Your task to perform on an android device: Search for asus zenbook on amazon, select the first entry, add it to the cart, then select checkout. Image 0: 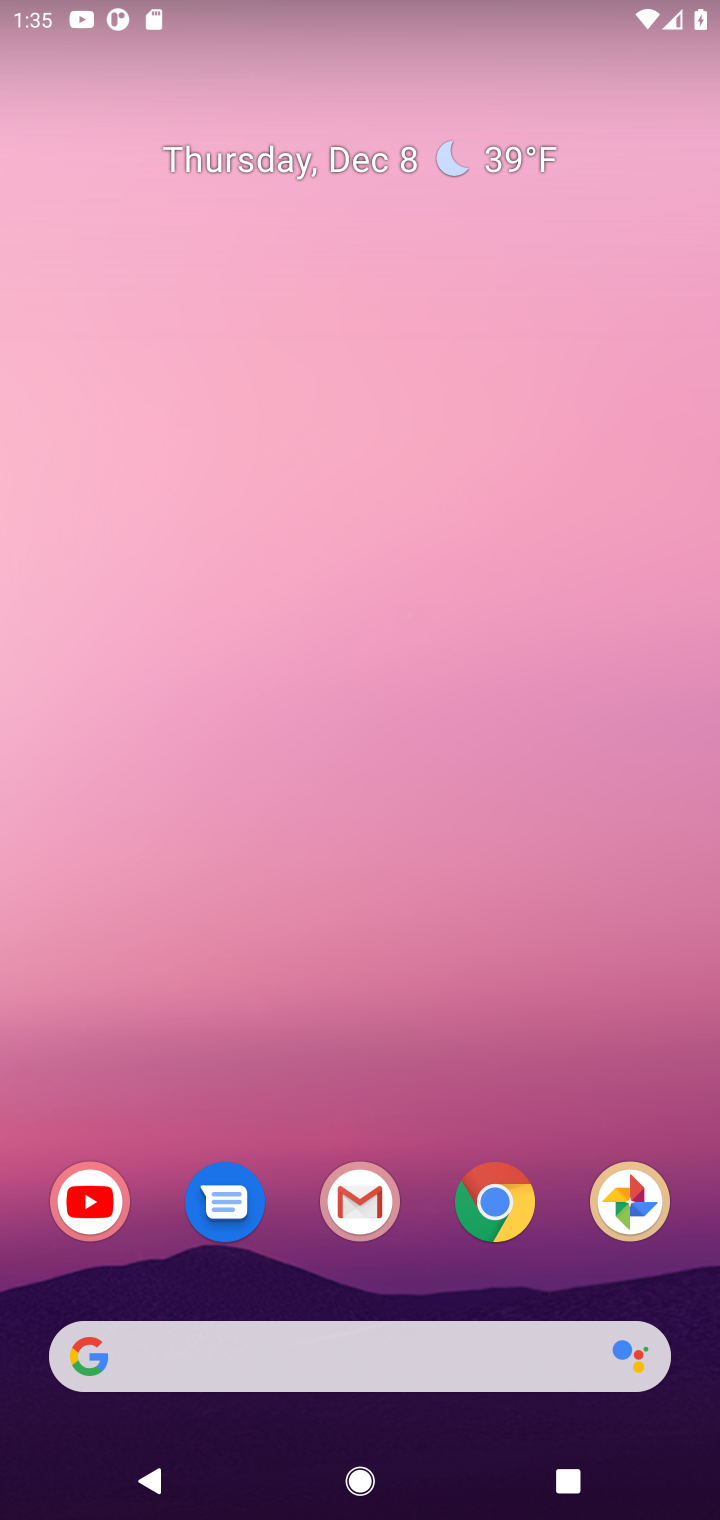
Step 0: click (480, 1177)
Your task to perform on an android device: Search for asus zenbook on amazon, select the first entry, add it to the cart, then select checkout. Image 1: 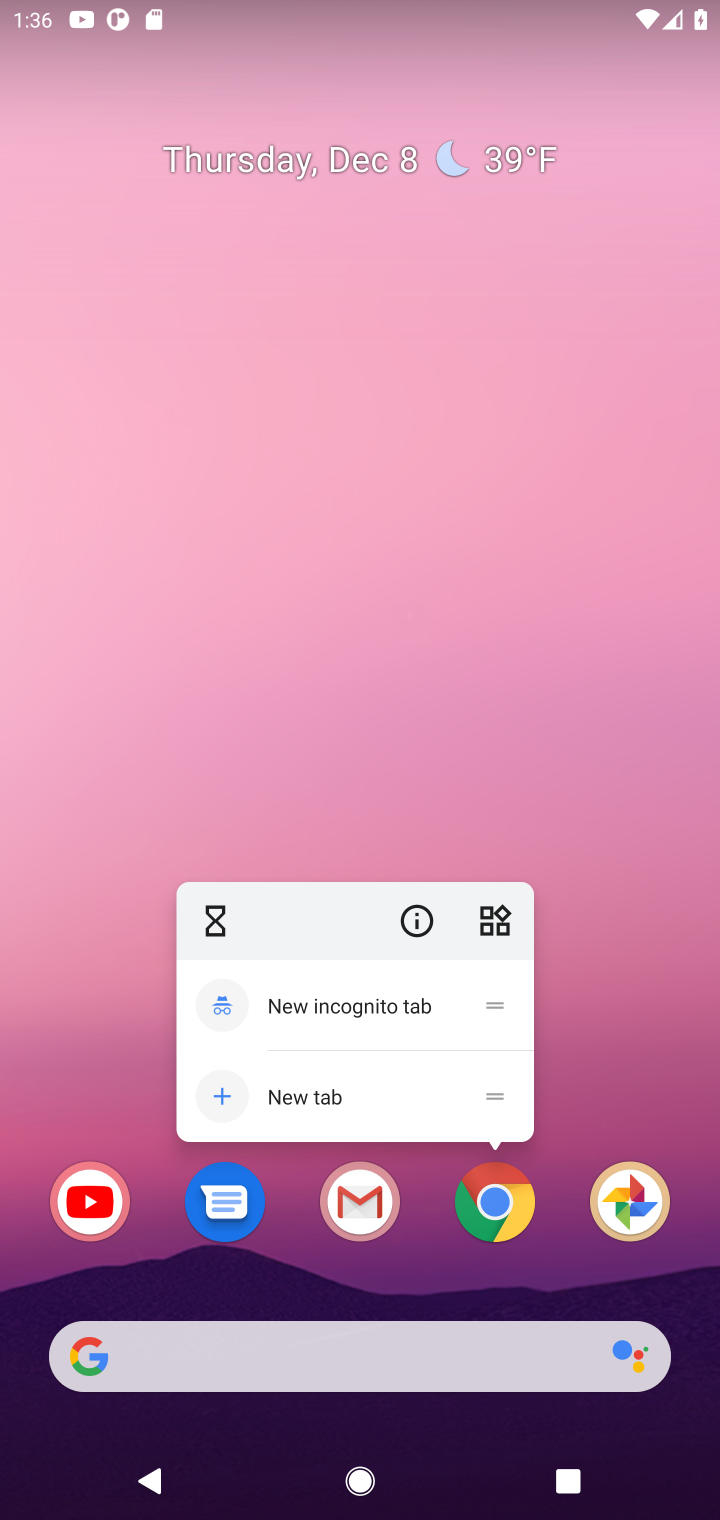
Step 1: click (511, 1195)
Your task to perform on an android device: Search for asus zenbook on amazon, select the first entry, add it to the cart, then select checkout. Image 2: 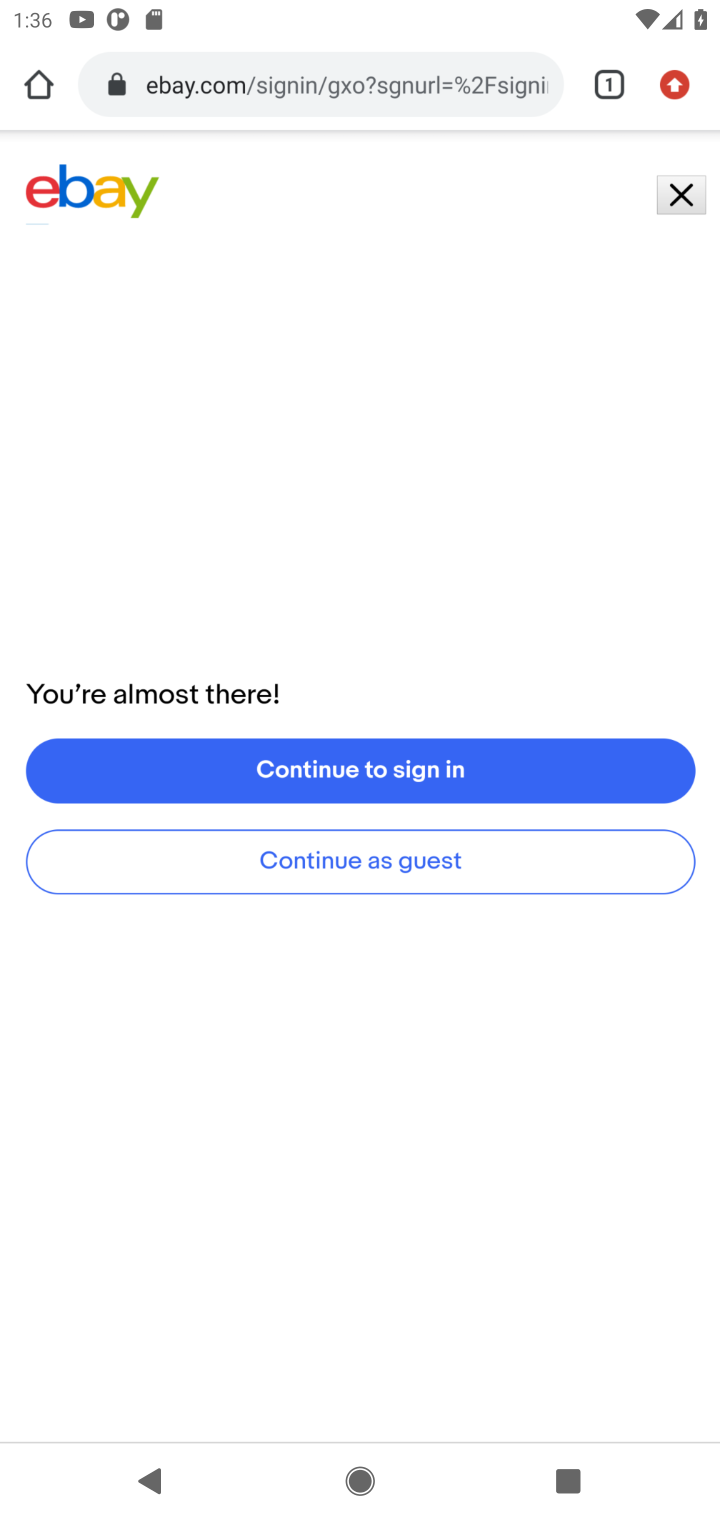
Step 2: click (511, 1195)
Your task to perform on an android device: Search for asus zenbook on amazon, select the first entry, add it to the cart, then select checkout. Image 3: 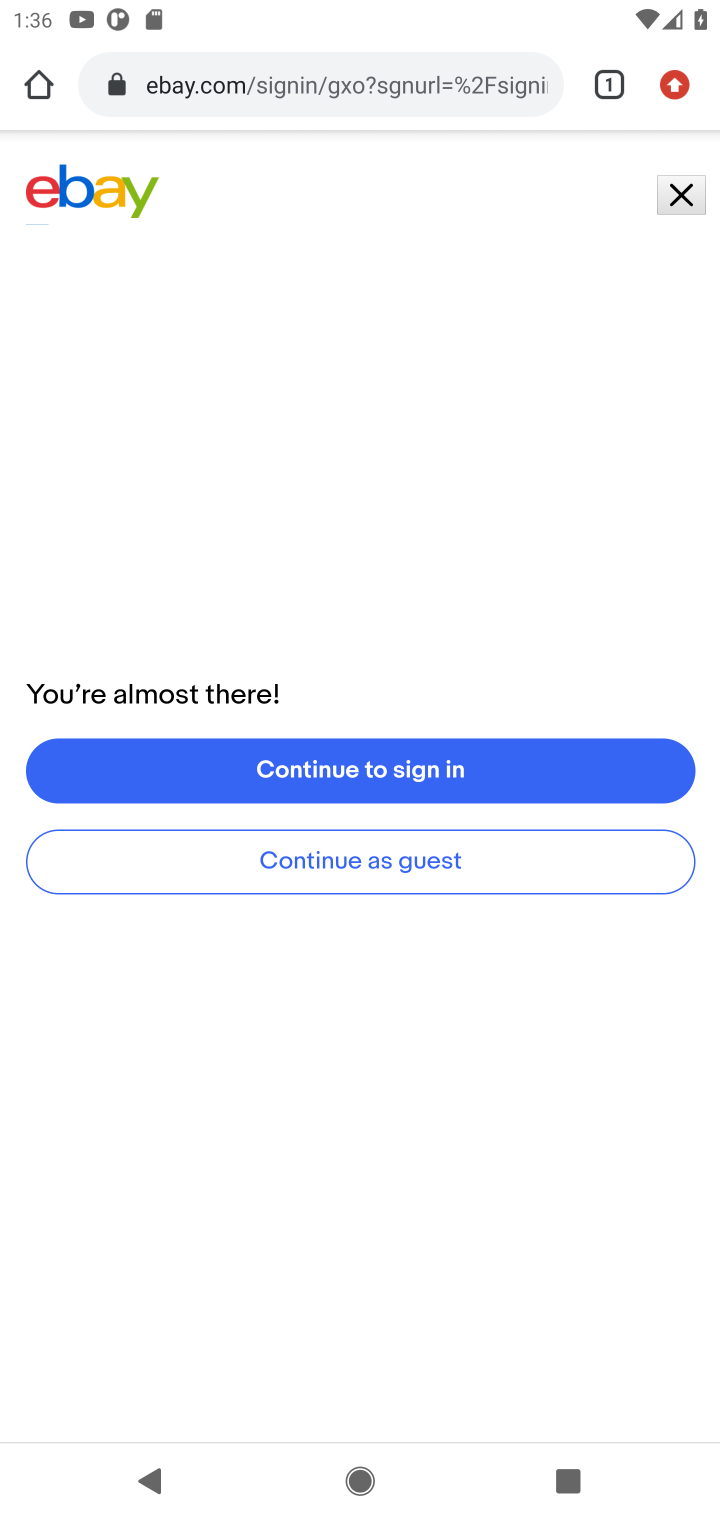
Step 3: click (275, 73)
Your task to perform on an android device: Search for asus zenbook on amazon, select the first entry, add it to the cart, then select checkout. Image 4: 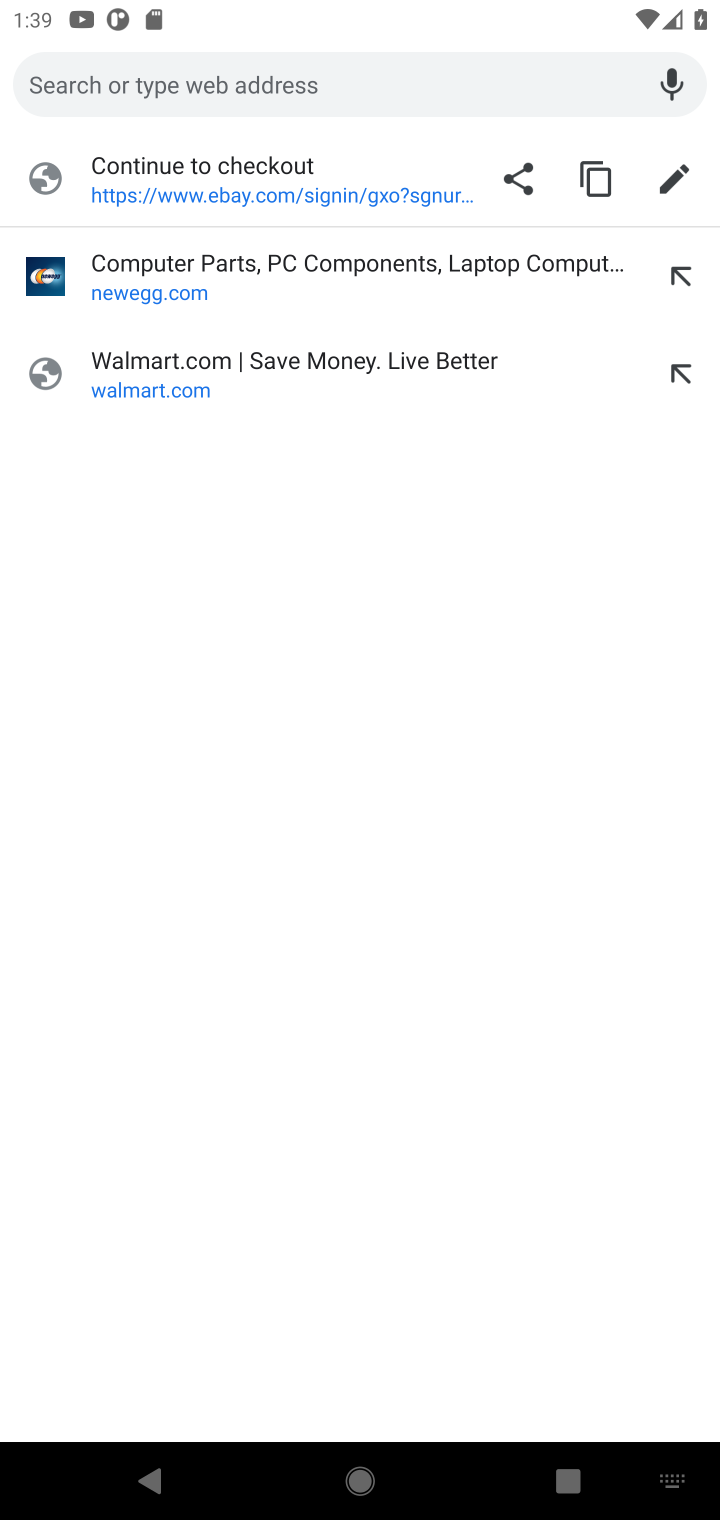
Step 4: press enter
Your task to perform on an android device: Search for asus zenbook on amazon, select the first entry, add it to the cart, then select checkout. Image 5: 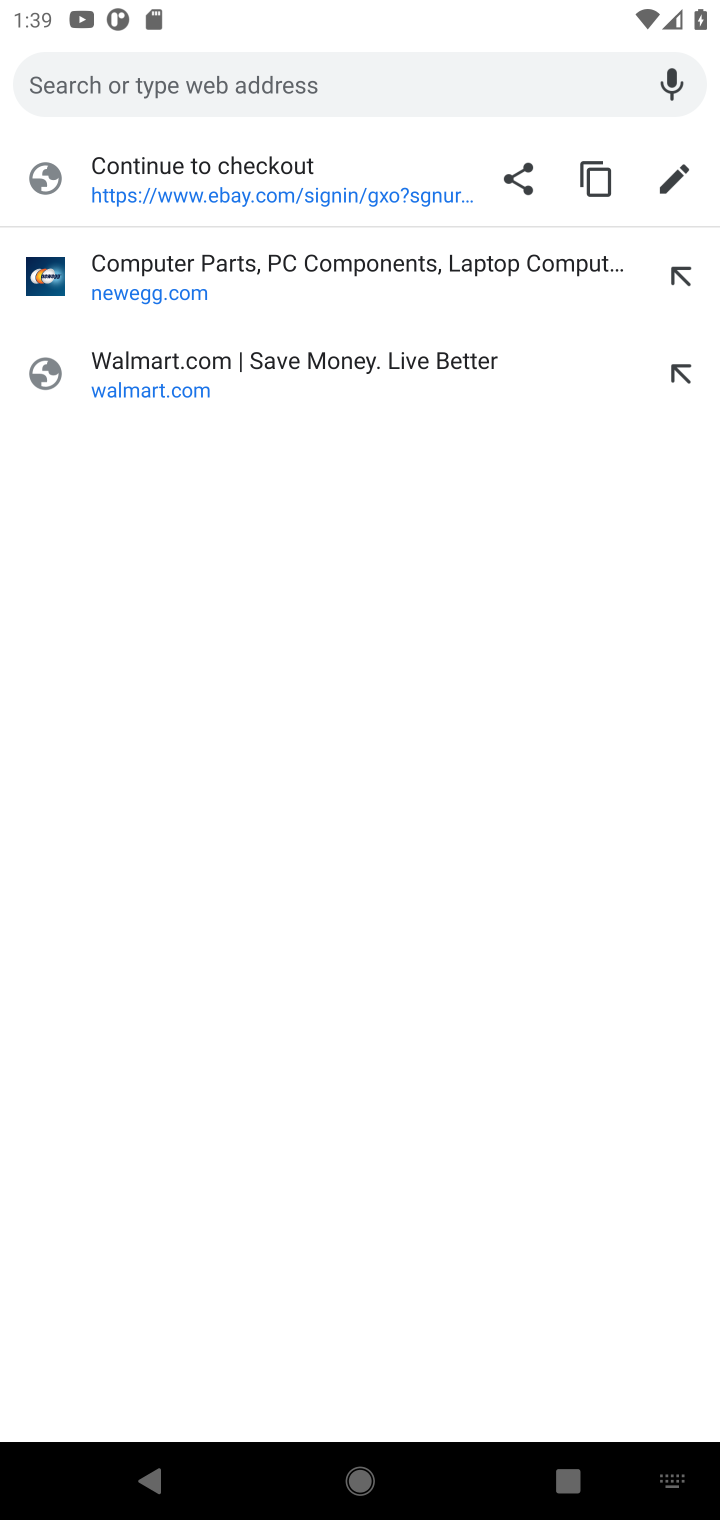
Step 5: type "amazon"
Your task to perform on an android device: Search for asus zenbook on amazon, select the first entry, add it to the cart, then select checkout. Image 6: 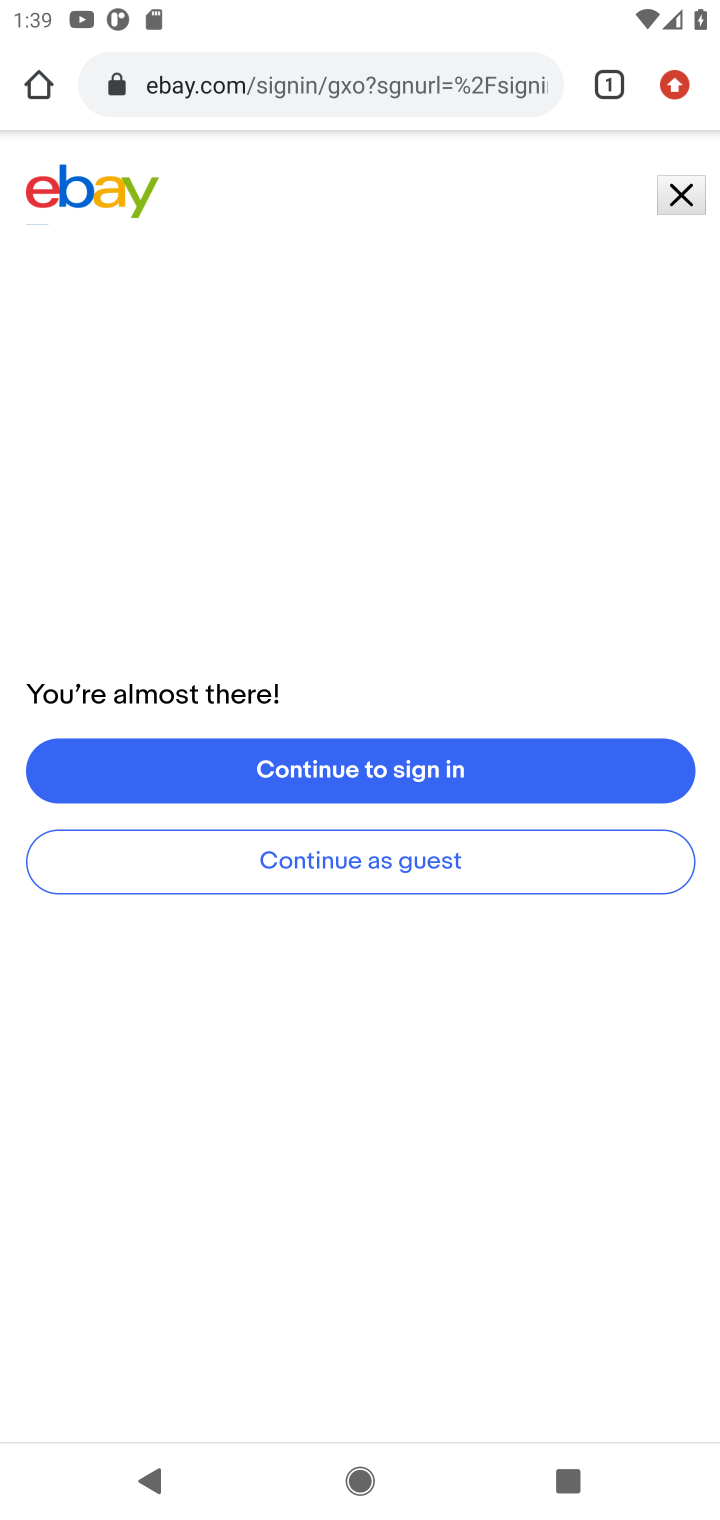
Step 6: click (473, 88)
Your task to perform on an android device: Search for asus zenbook on amazon, select the first entry, add it to the cart, then select checkout. Image 7: 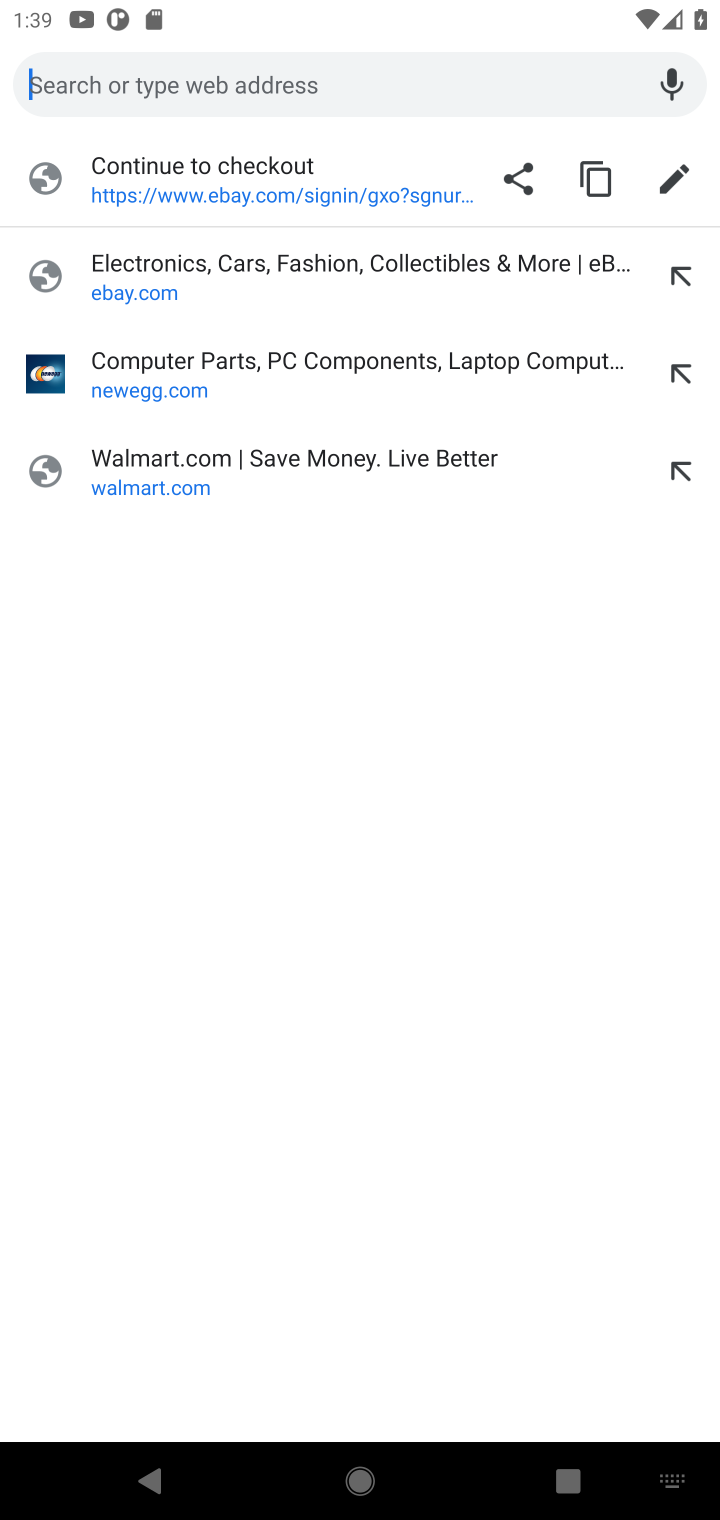
Step 7: type "amazon"
Your task to perform on an android device: Search for asus zenbook on amazon, select the first entry, add it to the cart, then select checkout. Image 8: 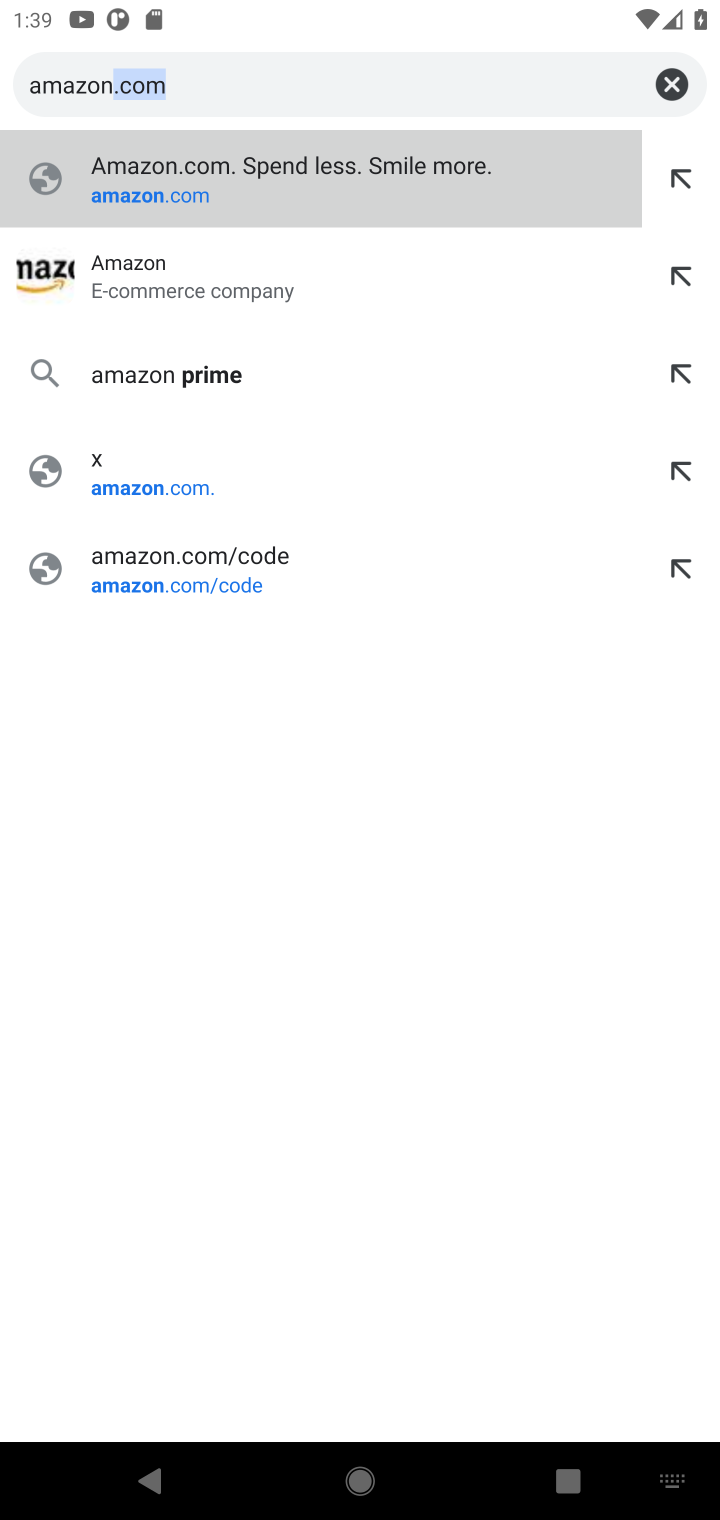
Step 8: press enter
Your task to perform on an android device: Search for asus zenbook on amazon, select the first entry, add it to the cart, then select checkout. Image 9: 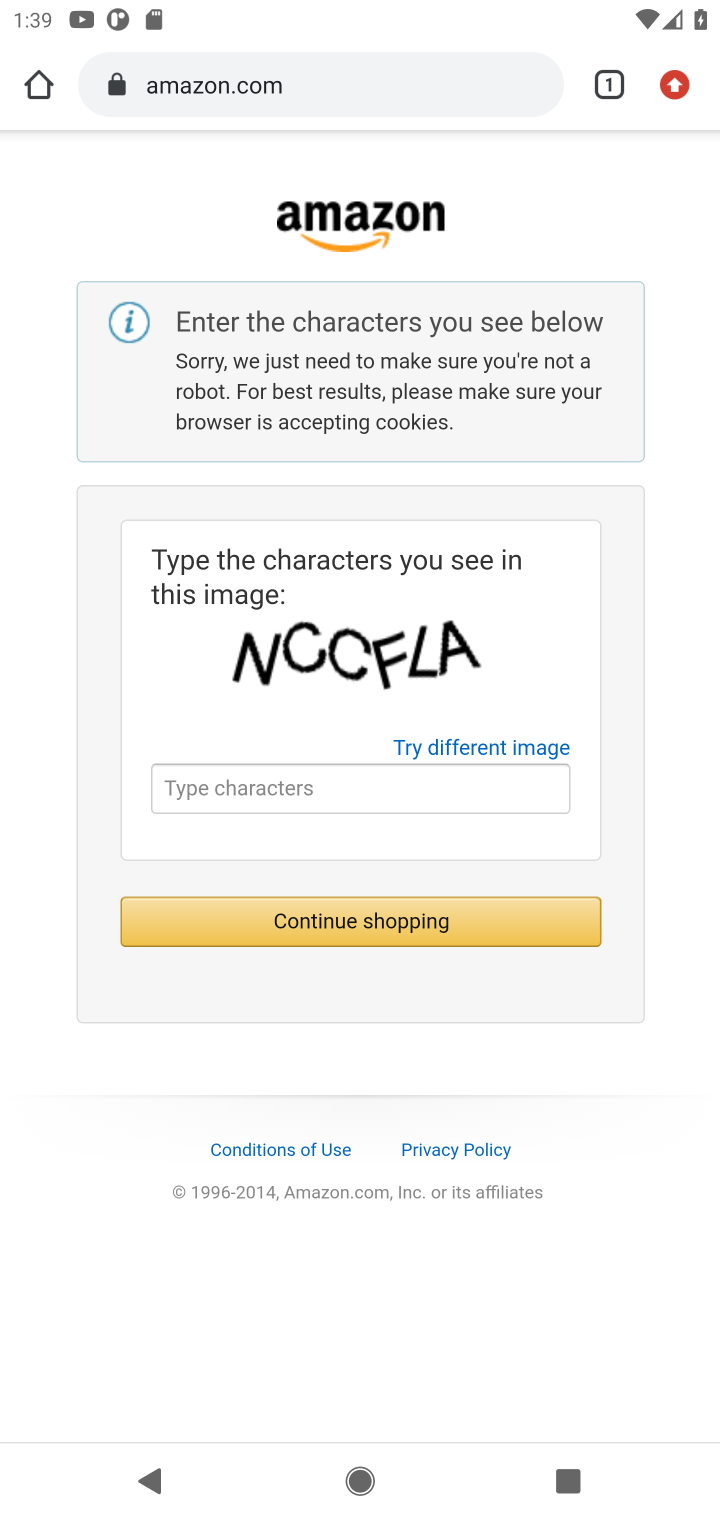
Step 9: press back button
Your task to perform on an android device: Search for asus zenbook on amazon, select the first entry, add it to the cart, then select checkout. Image 10: 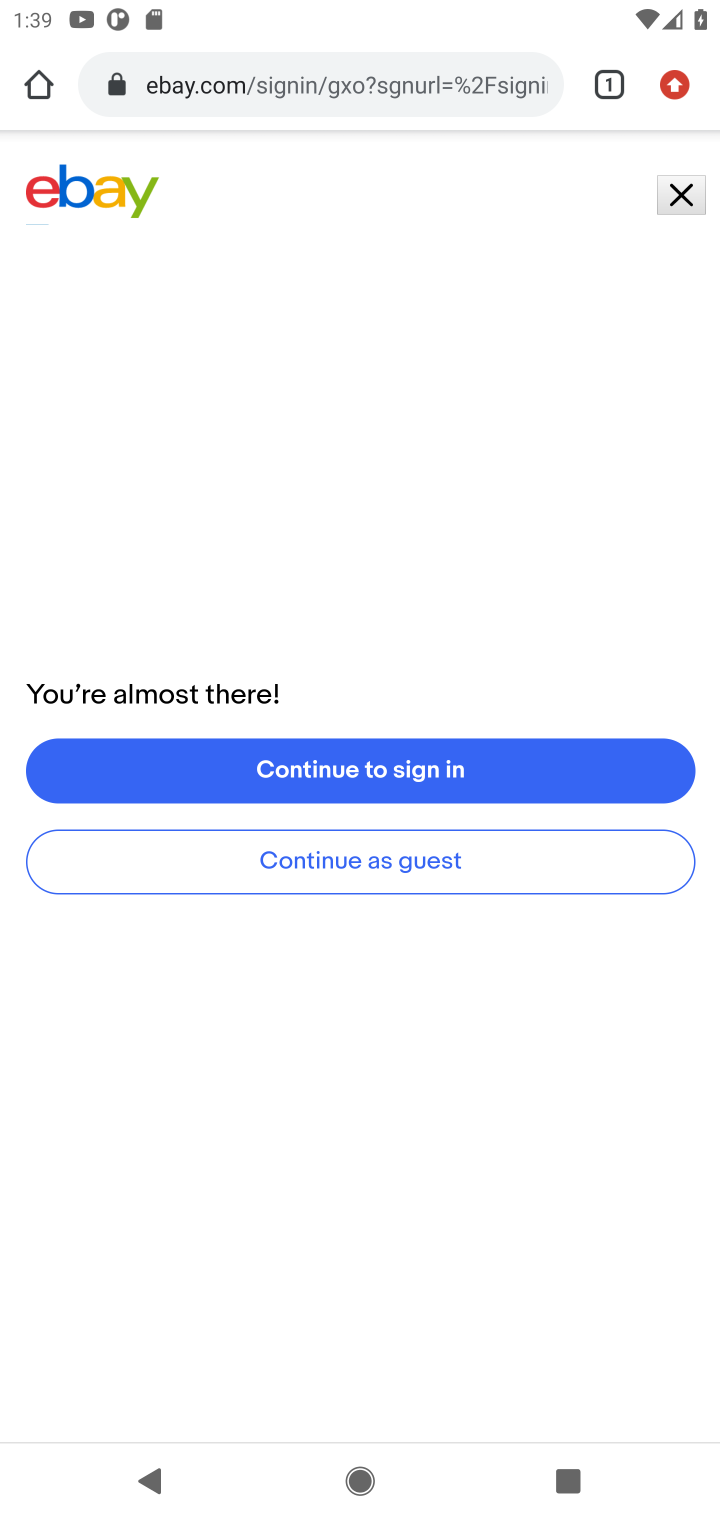
Step 10: click (366, 85)
Your task to perform on an android device: Search for asus zenbook on amazon, select the first entry, add it to the cart, then select checkout. Image 11: 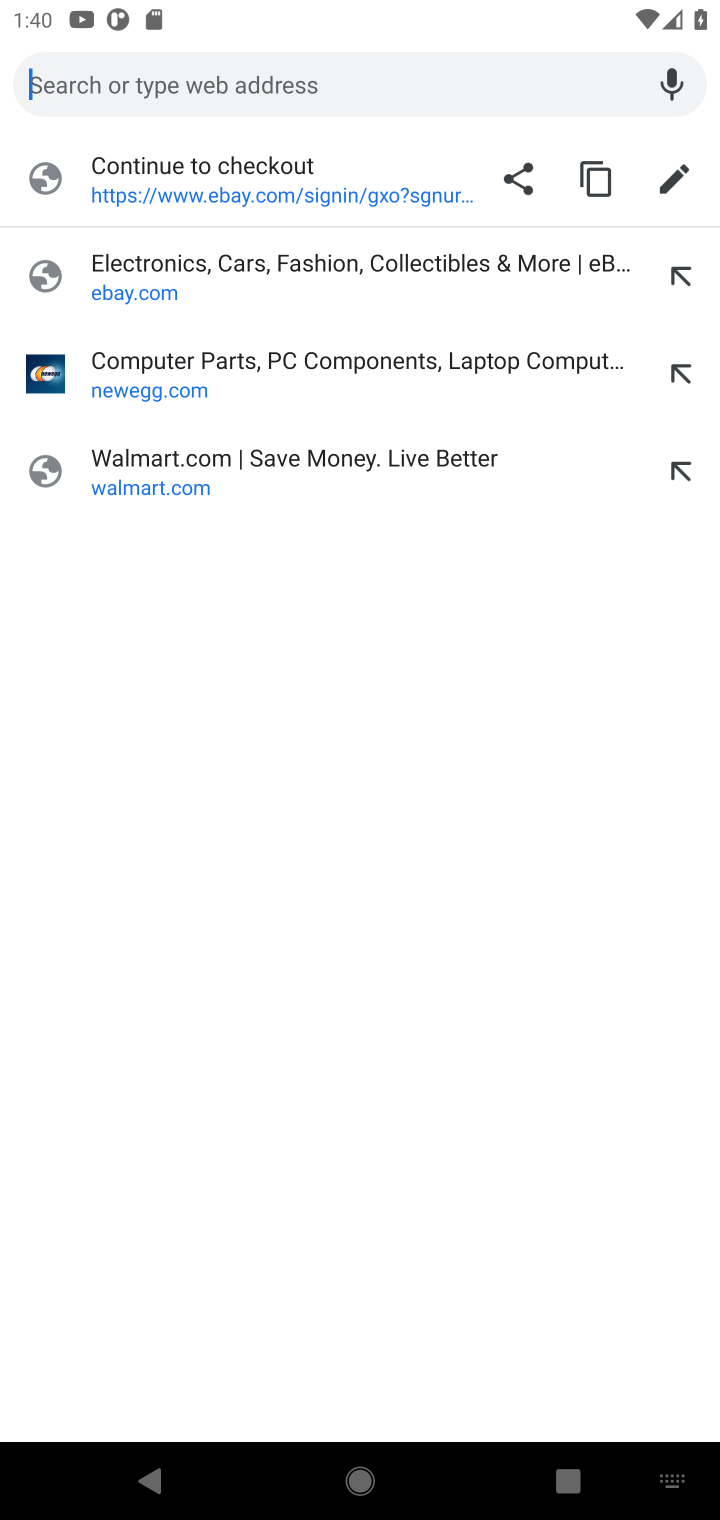
Step 11: type "amazon.com"
Your task to perform on an android device: Search for asus zenbook on amazon, select the first entry, add it to the cart, then select checkout. Image 12: 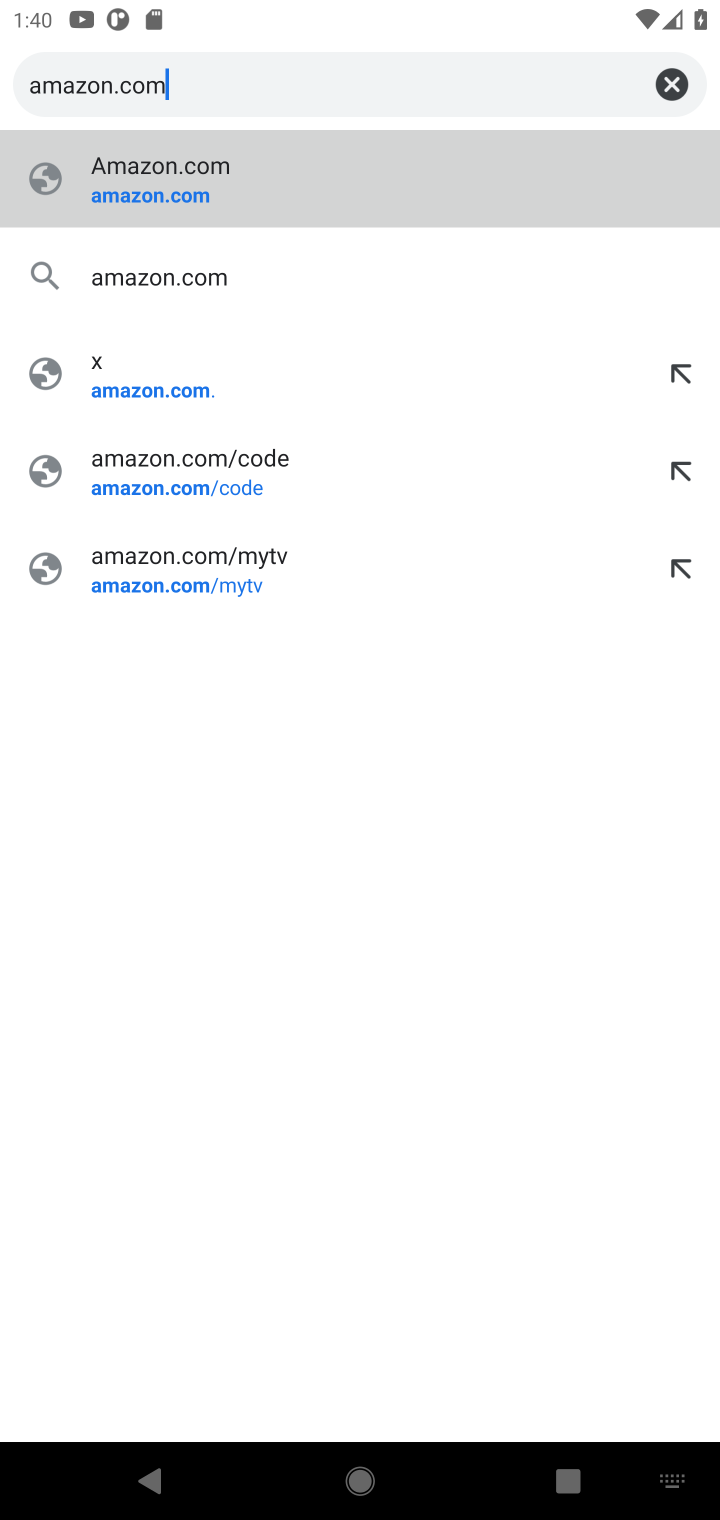
Step 12: click (208, 267)
Your task to perform on an android device: Search for asus zenbook on amazon, select the first entry, add it to the cart, then select checkout. Image 13: 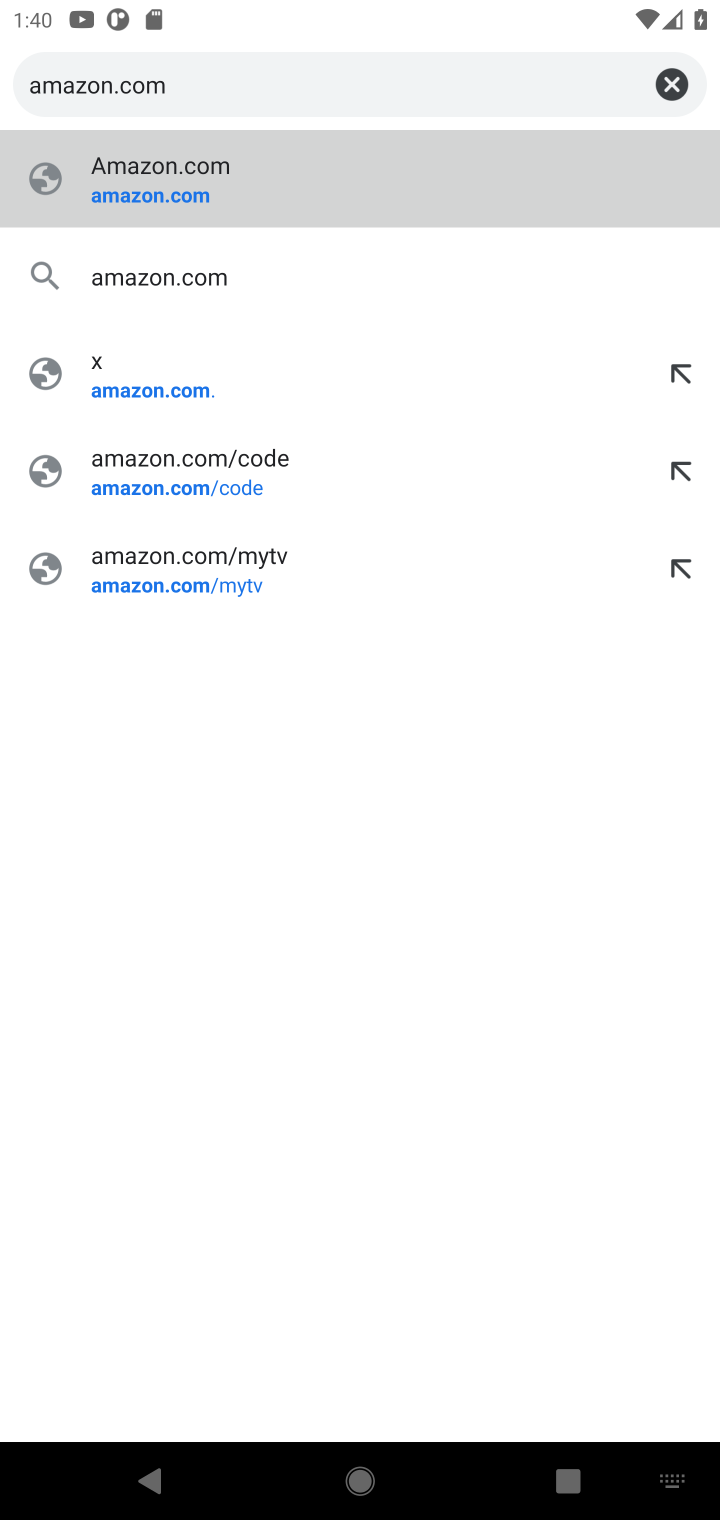
Step 13: click (326, 176)
Your task to perform on an android device: Search for asus zenbook on amazon, select the first entry, add it to the cart, then select checkout. Image 14: 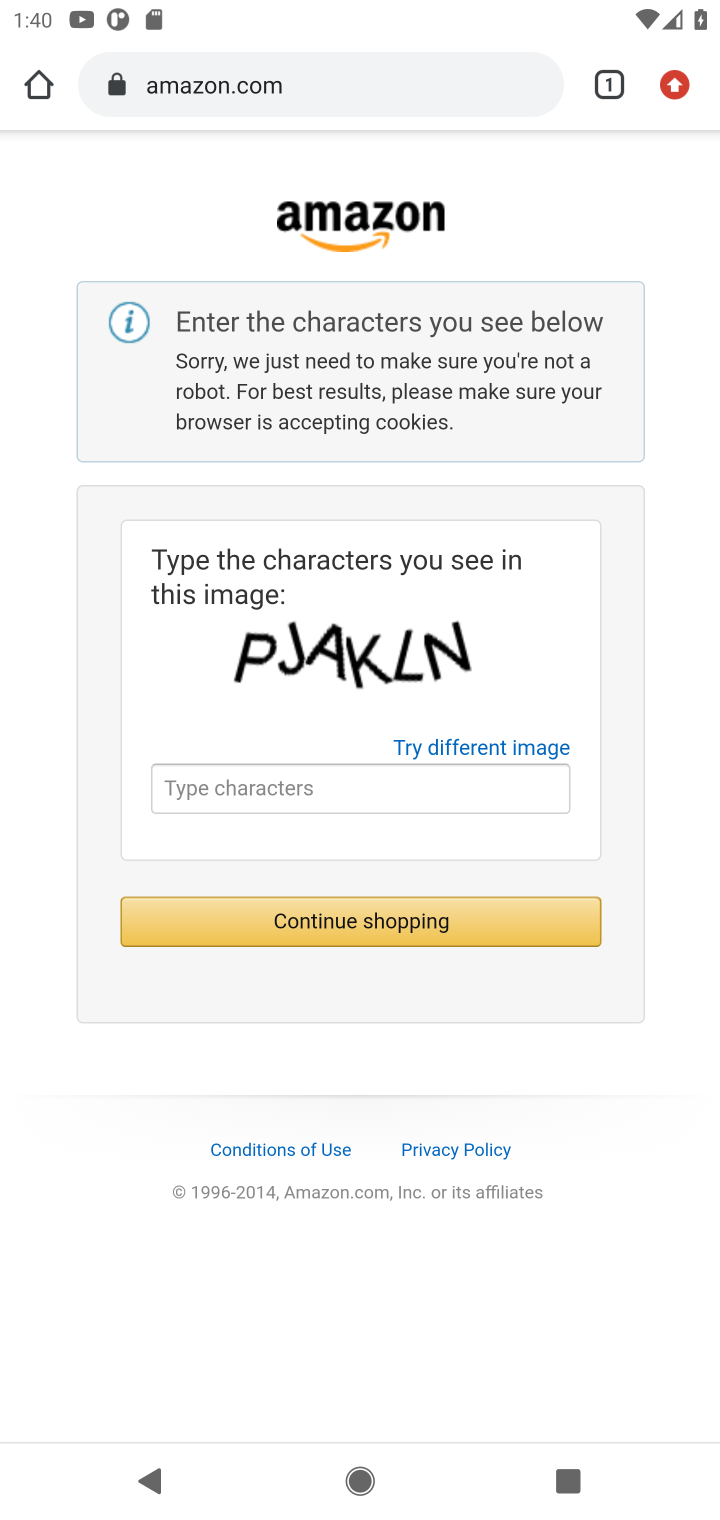
Step 14: press back button
Your task to perform on an android device: Search for asus zenbook on amazon, select the first entry, add it to the cart, then select checkout. Image 15: 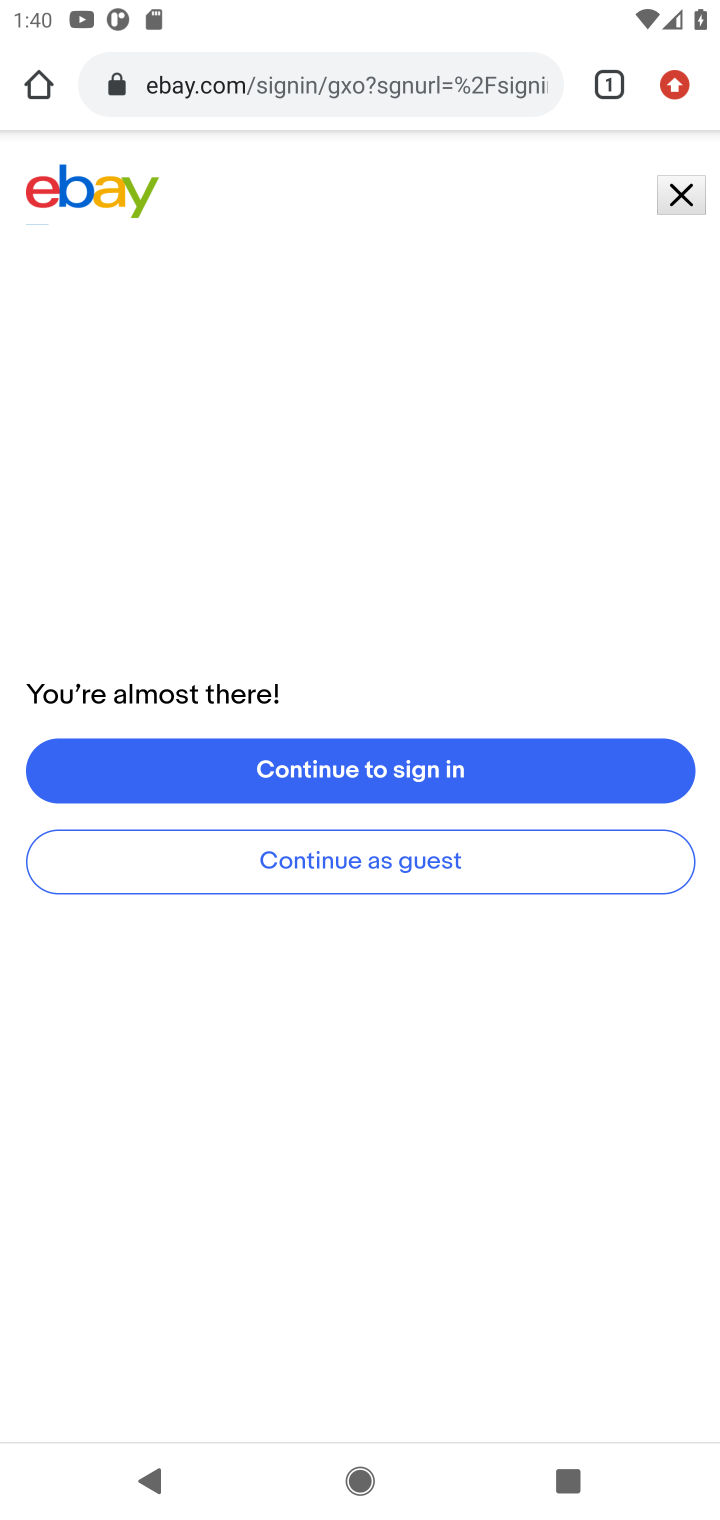
Step 15: click (338, 87)
Your task to perform on an android device: Search for asus zenbook on amazon, select the first entry, add it to the cart, then select checkout. Image 16: 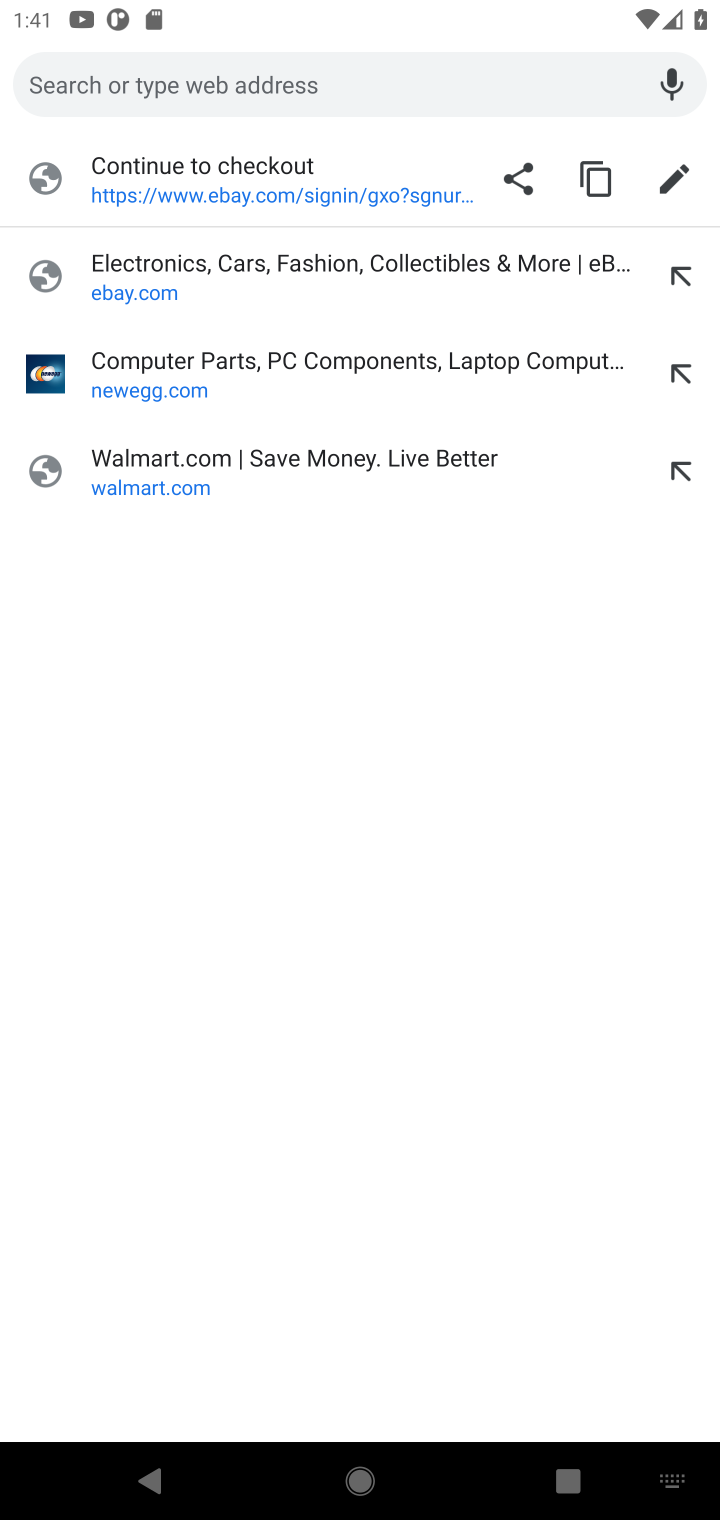
Step 16: type "amazon.com"
Your task to perform on an android device: Search for asus zenbook on amazon, select the first entry, add it to the cart, then select checkout. Image 17: 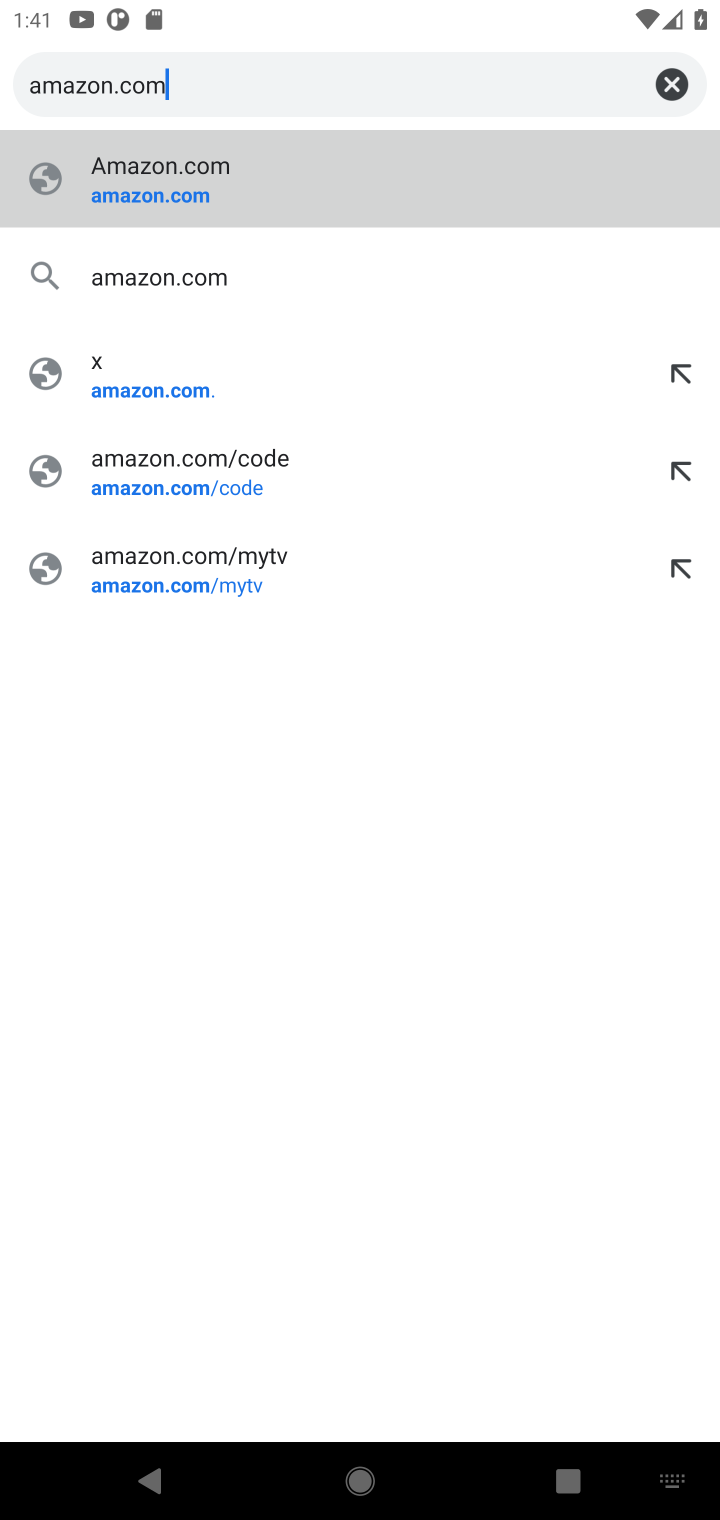
Step 17: press enter
Your task to perform on an android device: Search for asus zenbook on amazon, select the first entry, add it to the cart, then select checkout. Image 18: 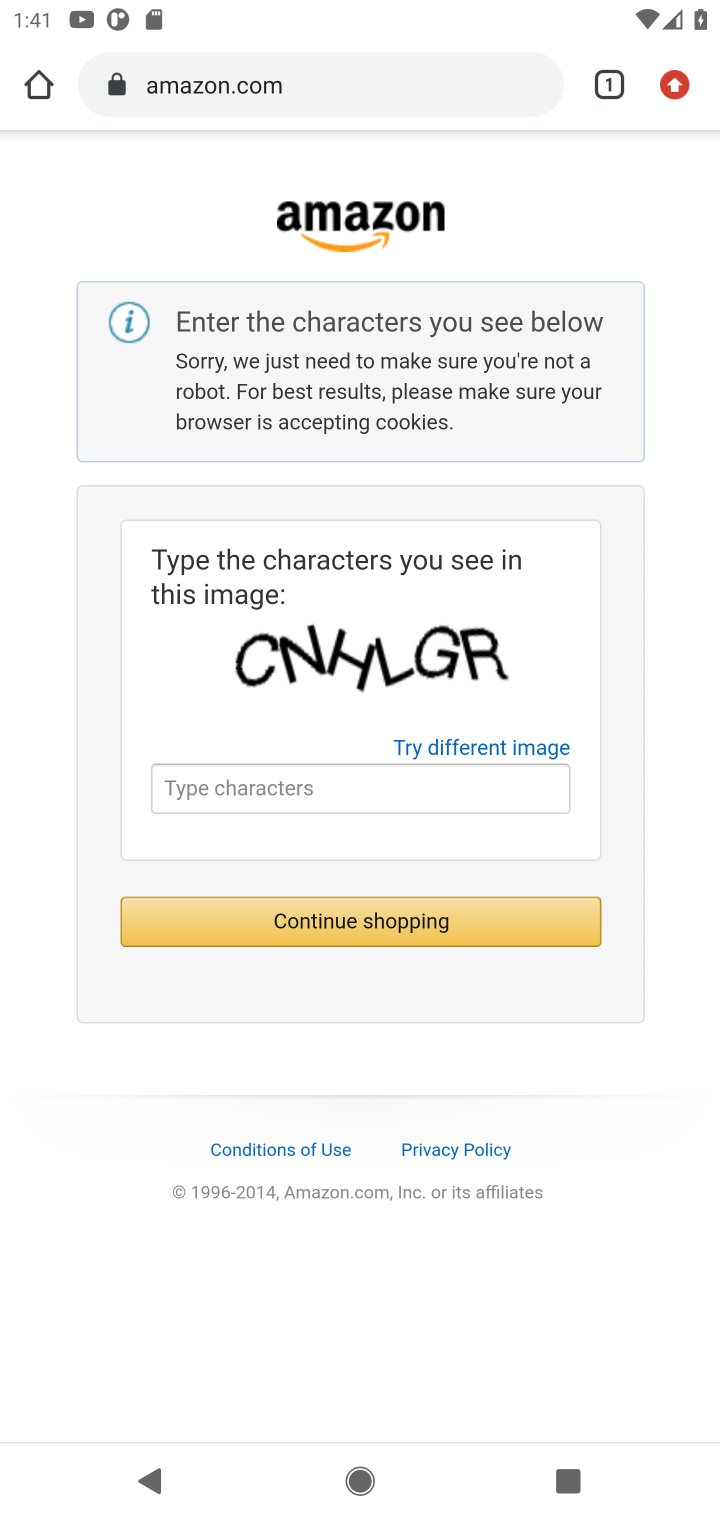
Step 18: task complete